Your task to perform on an android device: turn notification dots on Image 0: 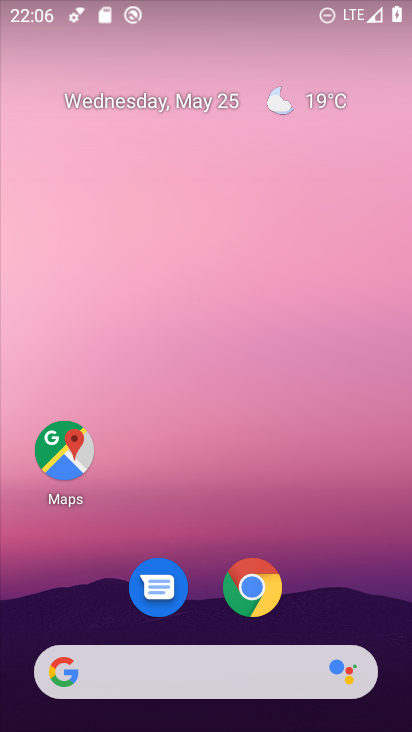
Step 0: drag from (371, 622) to (300, 78)
Your task to perform on an android device: turn notification dots on Image 1: 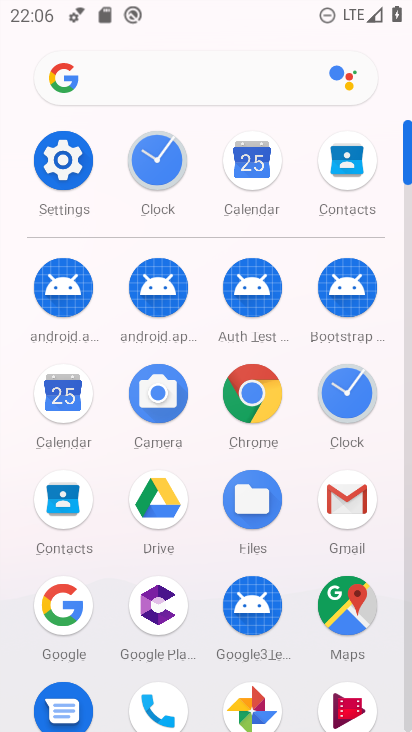
Step 1: click (410, 708)
Your task to perform on an android device: turn notification dots on Image 2: 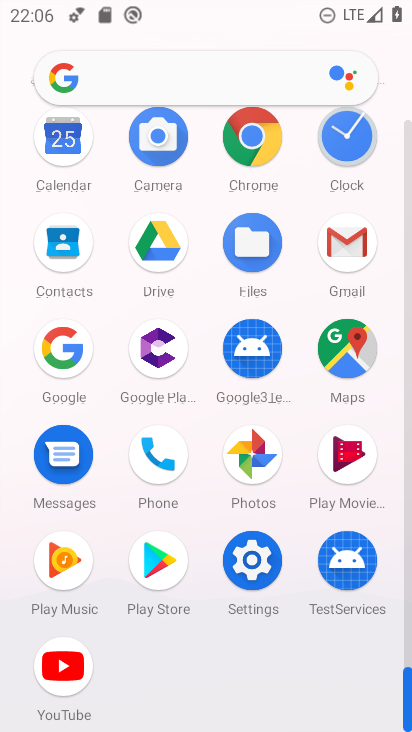
Step 2: click (253, 557)
Your task to perform on an android device: turn notification dots on Image 3: 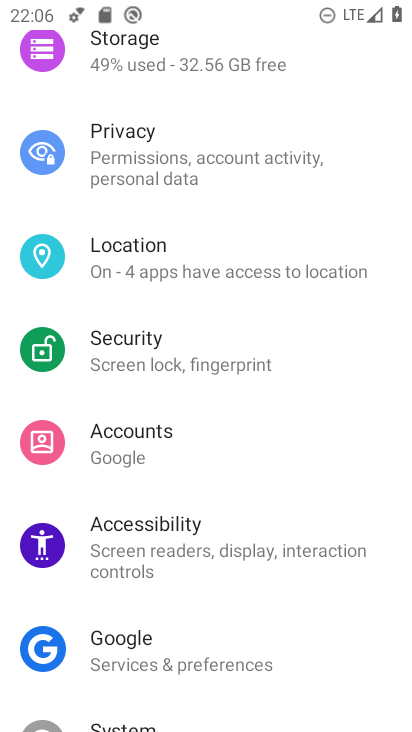
Step 3: drag from (302, 86) to (326, 531)
Your task to perform on an android device: turn notification dots on Image 4: 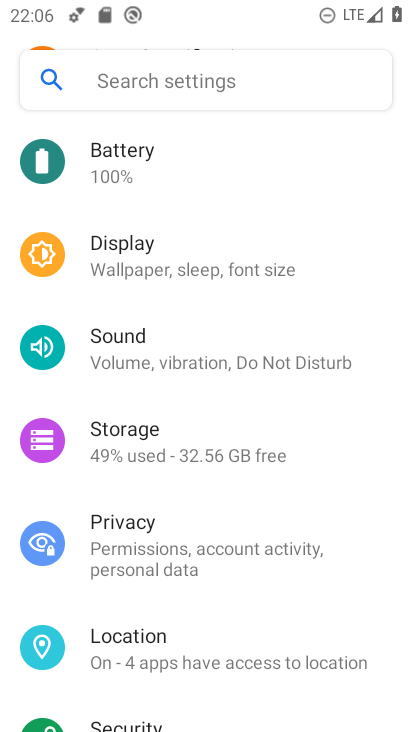
Step 4: drag from (228, 176) to (240, 493)
Your task to perform on an android device: turn notification dots on Image 5: 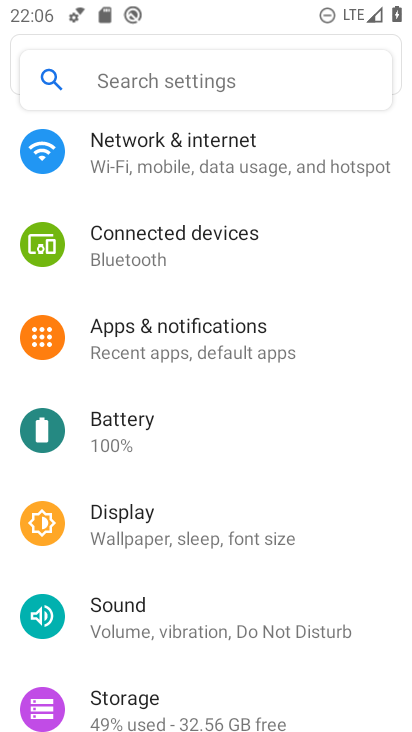
Step 5: click (157, 330)
Your task to perform on an android device: turn notification dots on Image 6: 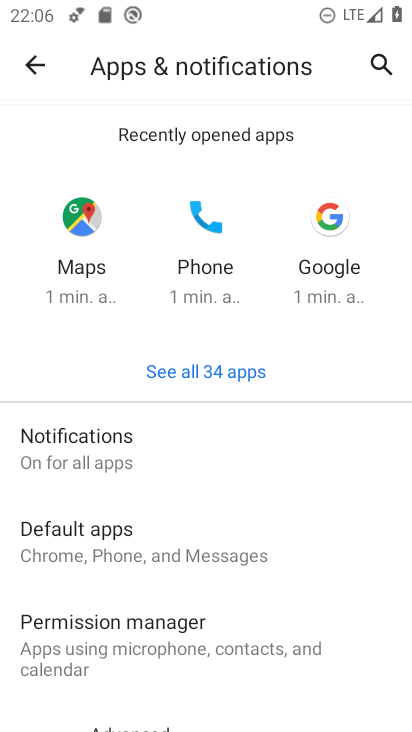
Step 6: click (78, 439)
Your task to perform on an android device: turn notification dots on Image 7: 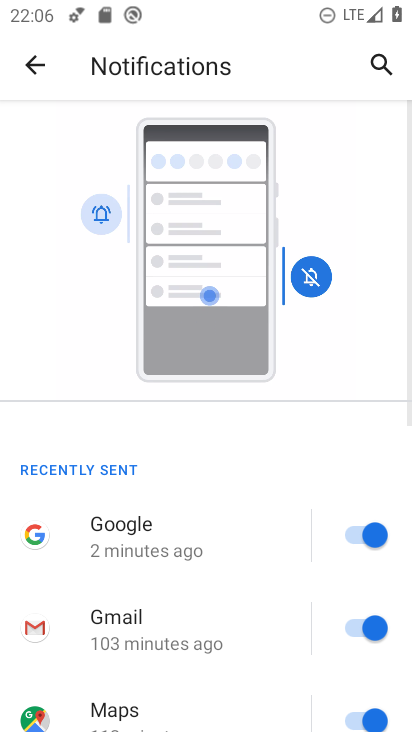
Step 7: drag from (316, 635) to (293, 237)
Your task to perform on an android device: turn notification dots on Image 8: 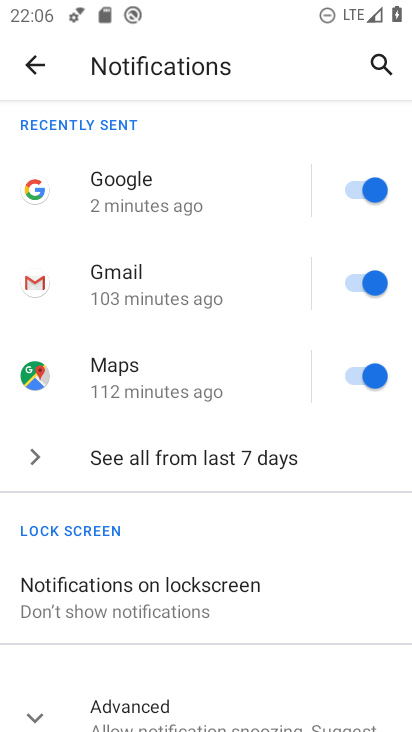
Step 8: drag from (290, 642) to (240, 267)
Your task to perform on an android device: turn notification dots on Image 9: 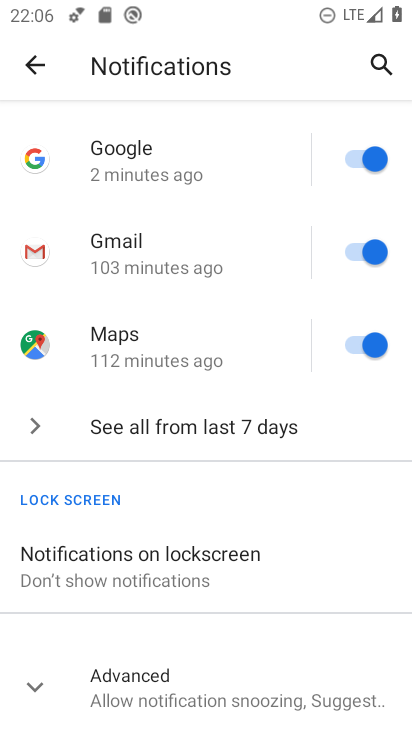
Step 9: click (38, 683)
Your task to perform on an android device: turn notification dots on Image 10: 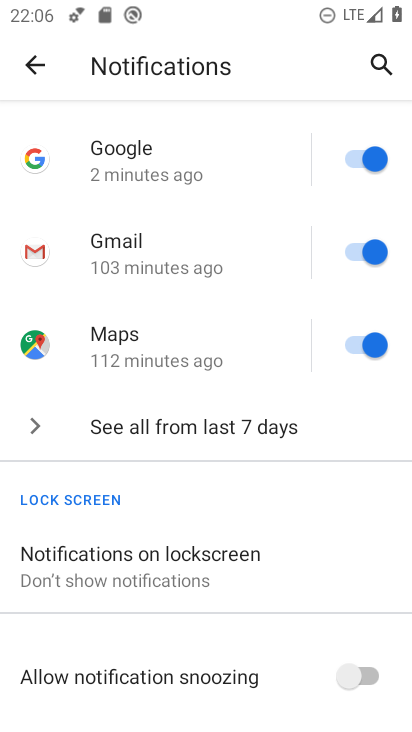
Step 10: drag from (245, 692) to (150, 170)
Your task to perform on an android device: turn notification dots on Image 11: 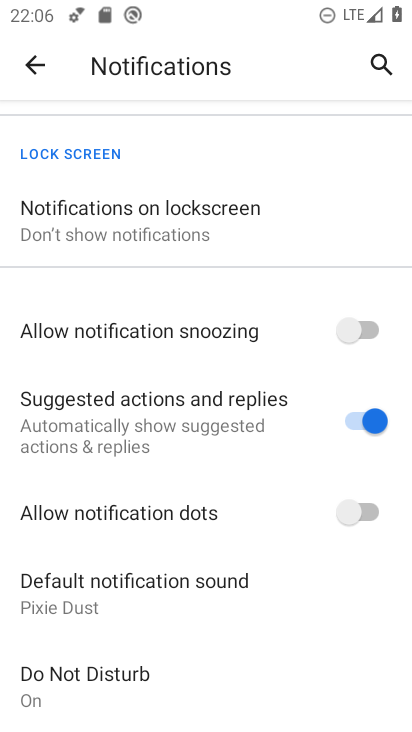
Step 11: click (361, 510)
Your task to perform on an android device: turn notification dots on Image 12: 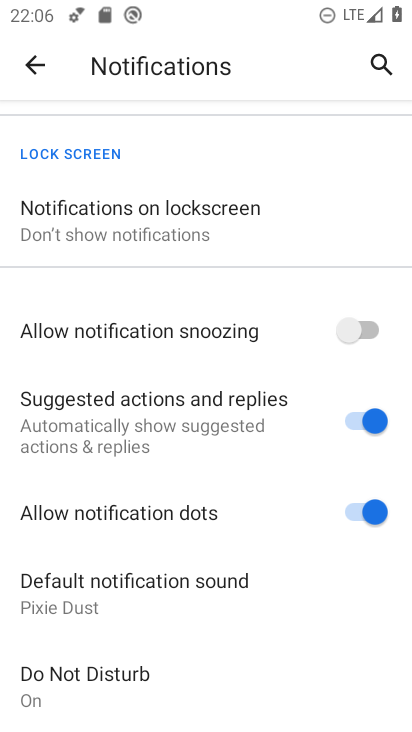
Step 12: task complete